Your task to perform on an android device: manage bookmarks in the chrome app Image 0: 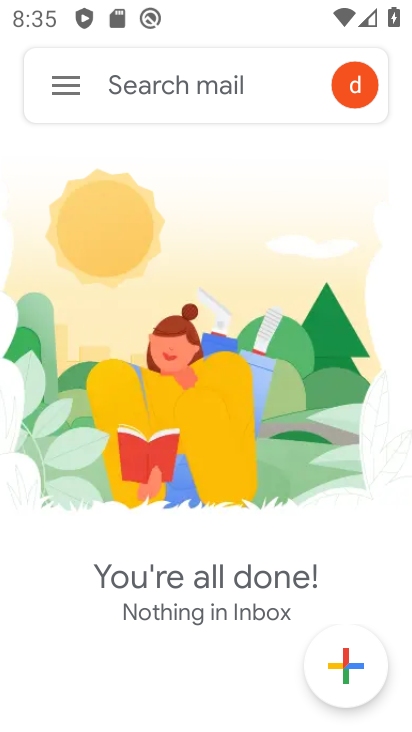
Step 0: press home button
Your task to perform on an android device: manage bookmarks in the chrome app Image 1: 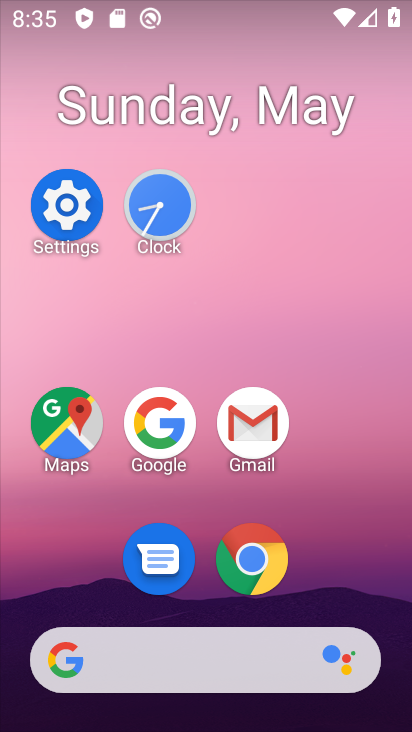
Step 1: click (263, 579)
Your task to perform on an android device: manage bookmarks in the chrome app Image 2: 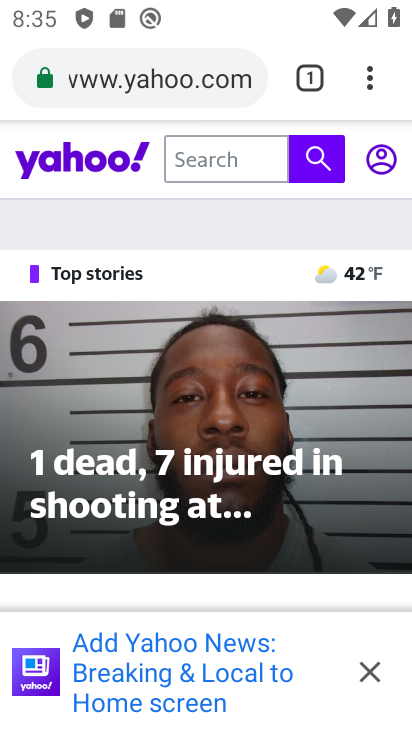
Step 2: click (367, 94)
Your task to perform on an android device: manage bookmarks in the chrome app Image 3: 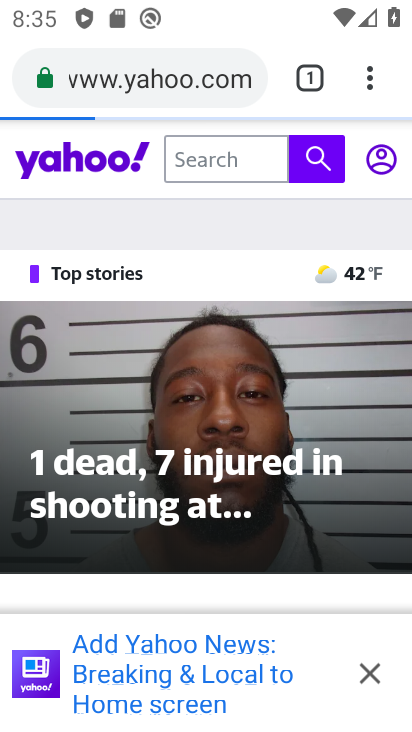
Step 3: click (322, 138)
Your task to perform on an android device: manage bookmarks in the chrome app Image 4: 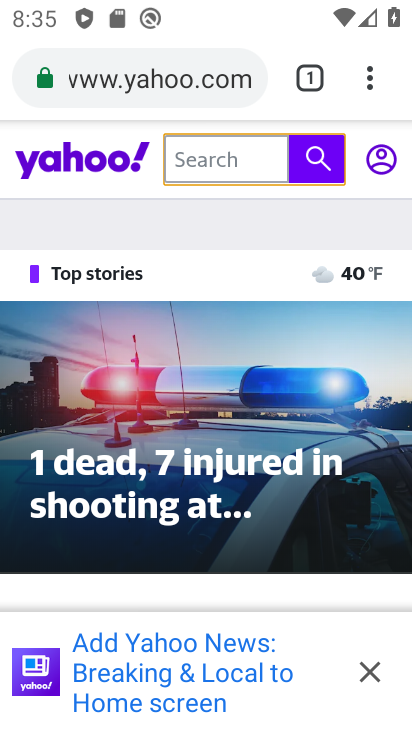
Step 4: click (367, 84)
Your task to perform on an android device: manage bookmarks in the chrome app Image 5: 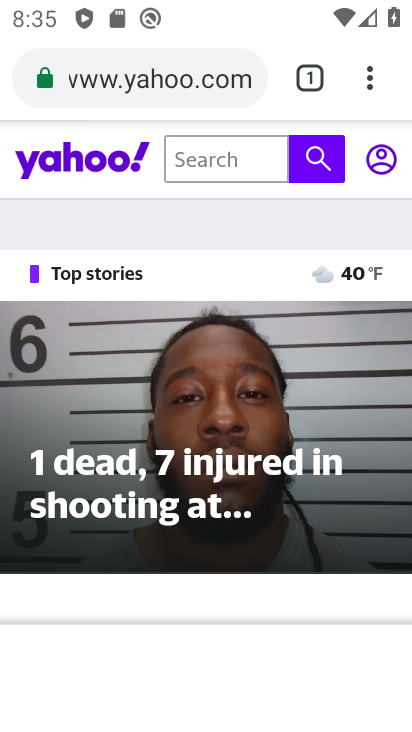
Step 5: click (373, 56)
Your task to perform on an android device: manage bookmarks in the chrome app Image 6: 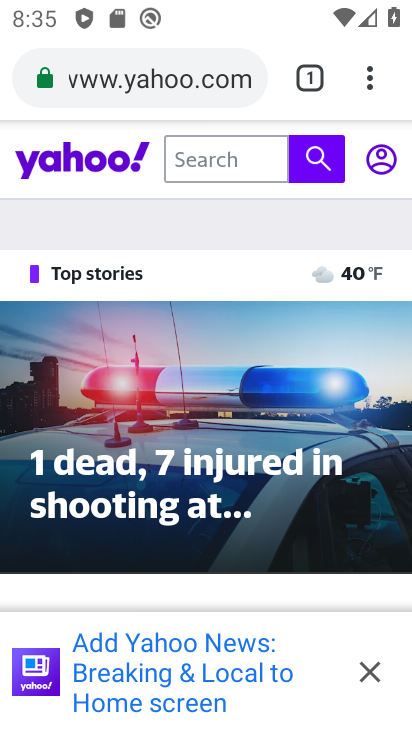
Step 6: click (367, 78)
Your task to perform on an android device: manage bookmarks in the chrome app Image 7: 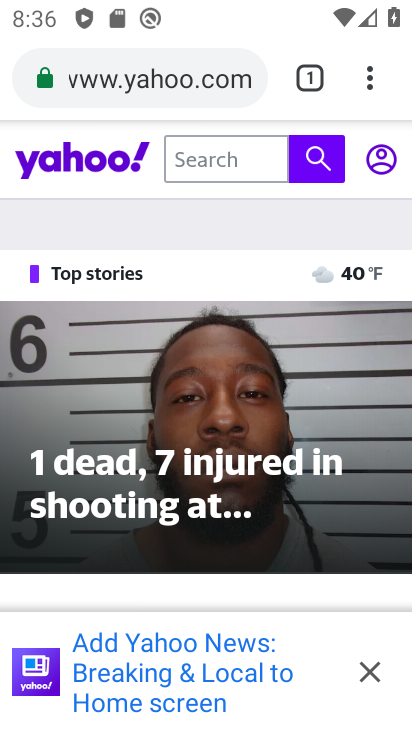
Step 7: click (370, 89)
Your task to perform on an android device: manage bookmarks in the chrome app Image 8: 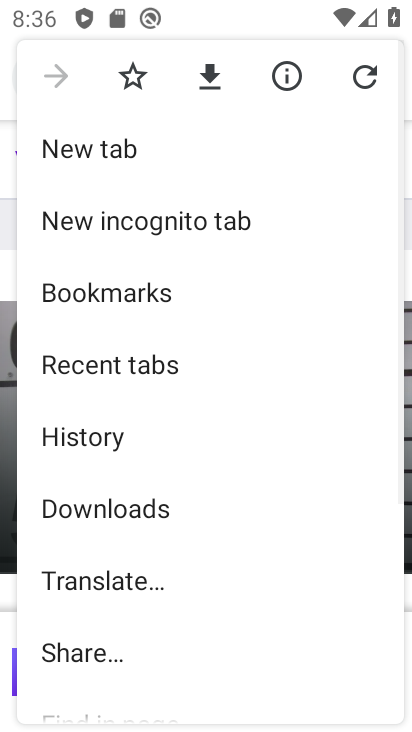
Step 8: click (227, 267)
Your task to perform on an android device: manage bookmarks in the chrome app Image 9: 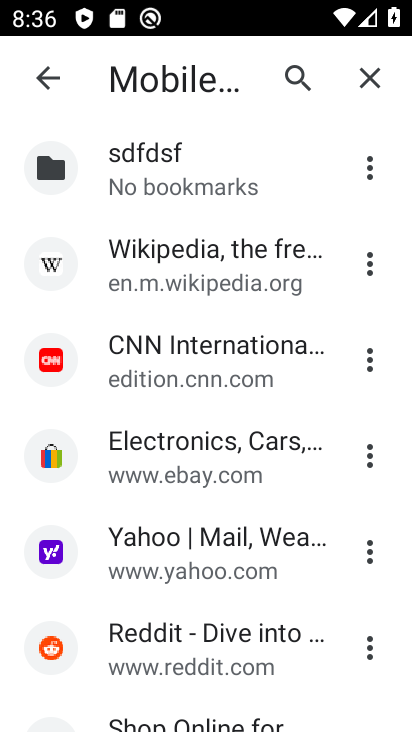
Step 9: click (361, 354)
Your task to perform on an android device: manage bookmarks in the chrome app Image 10: 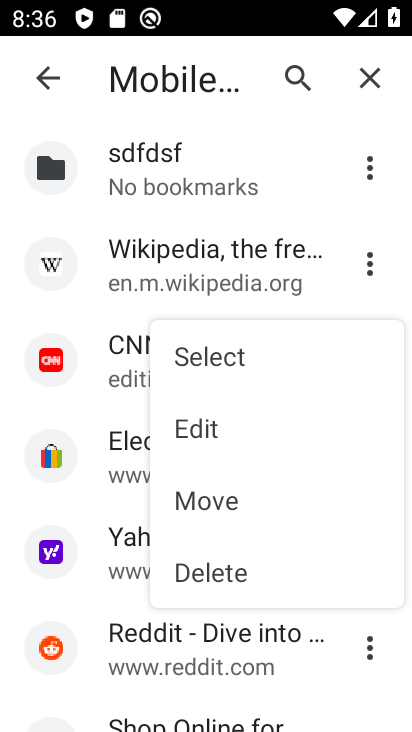
Step 10: click (378, 270)
Your task to perform on an android device: manage bookmarks in the chrome app Image 11: 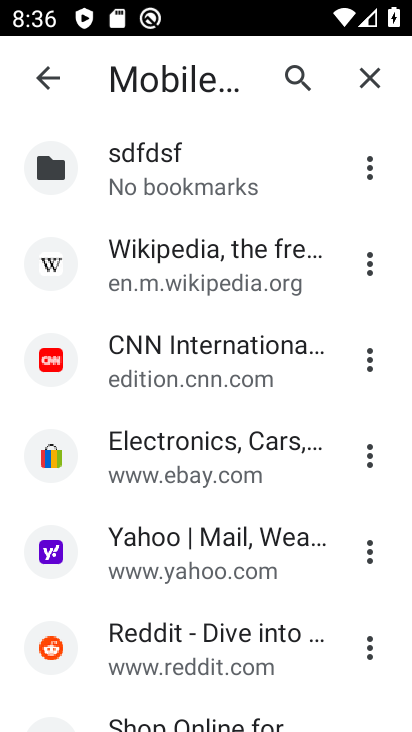
Step 11: click (375, 269)
Your task to perform on an android device: manage bookmarks in the chrome app Image 12: 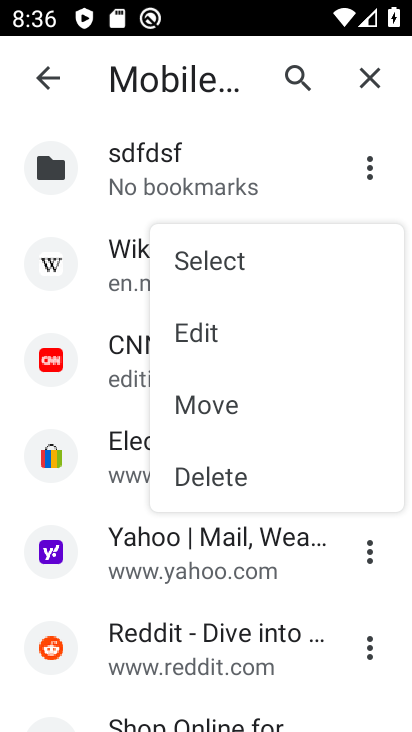
Step 12: click (243, 467)
Your task to perform on an android device: manage bookmarks in the chrome app Image 13: 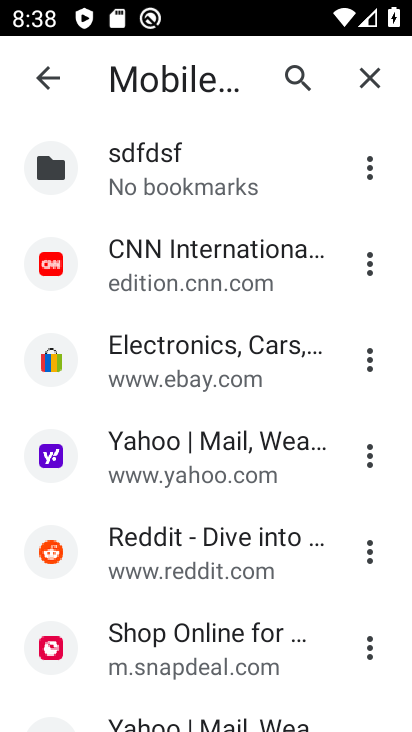
Step 13: task complete